Your task to perform on an android device: check out phone information Image 0: 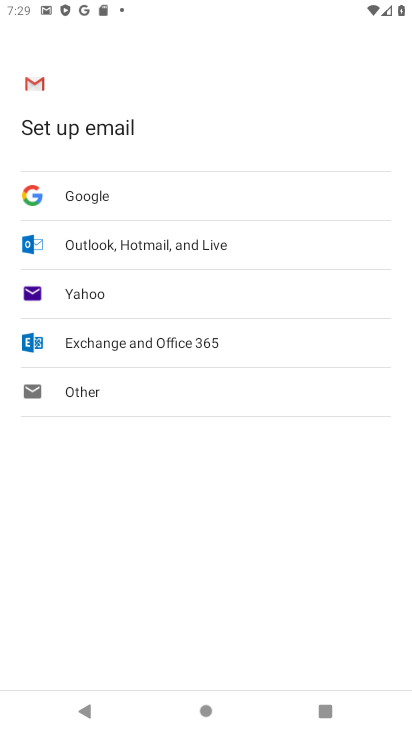
Step 0: press home button
Your task to perform on an android device: check out phone information Image 1: 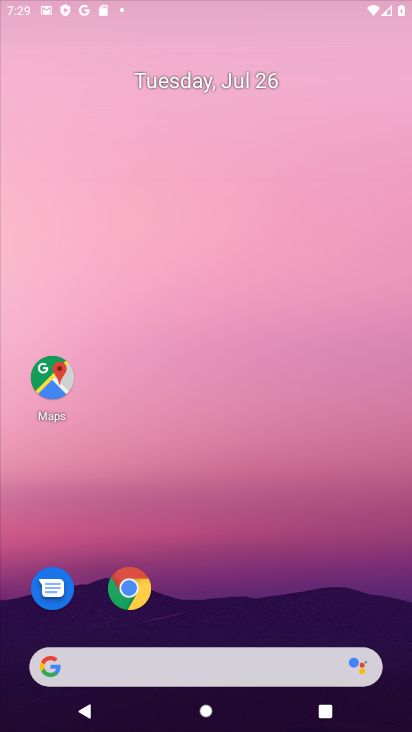
Step 1: drag from (216, 674) to (212, 222)
Your task to perform on an android device: check out phone information Image 2: 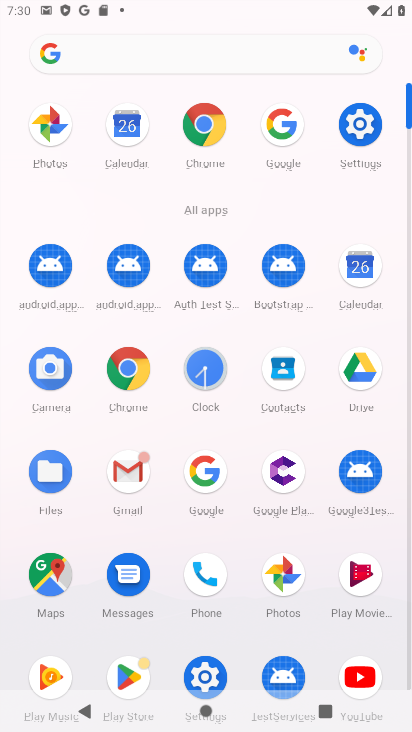
Step 2: click (358, 152)
Your task to perform on an android device: check out phone information Image 3: 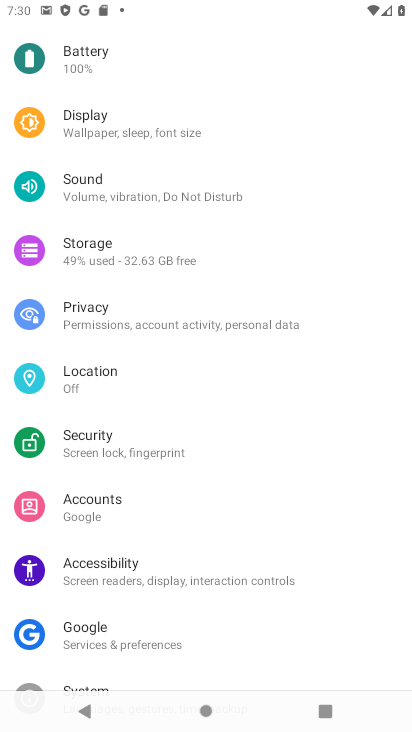
Step 3: drag from (163, 534) to (163, 191)
Your task to perform on an android device: check out phone information Image 4: 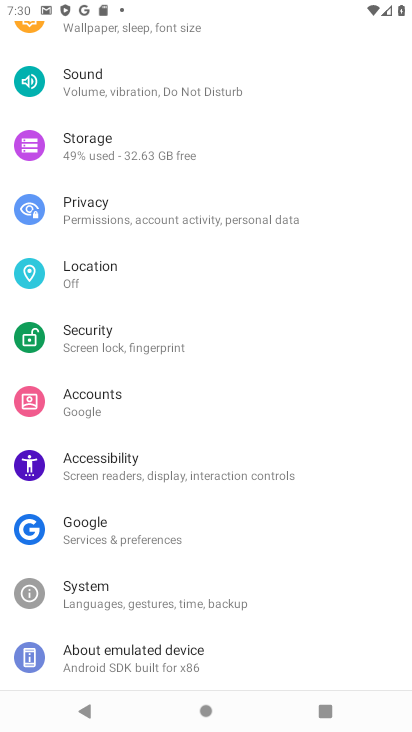
Step 4: click (175, 651)
Your task to perform on an android device: check out phone information Image 5: 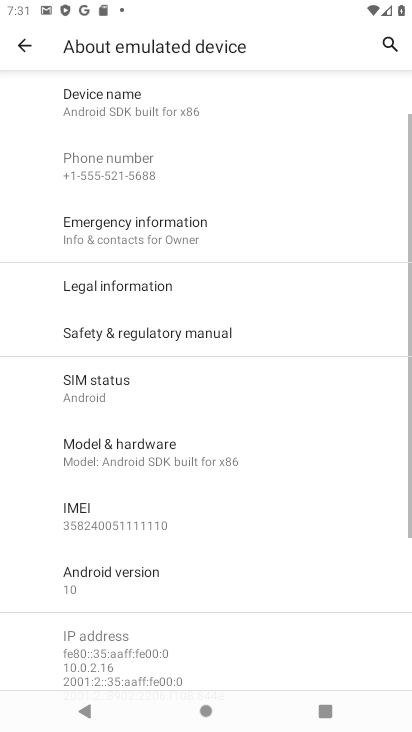
Step 5: task complete